Your task to perform on an android device: Open the Play Movies app and select the watchlist tab. Image 0: 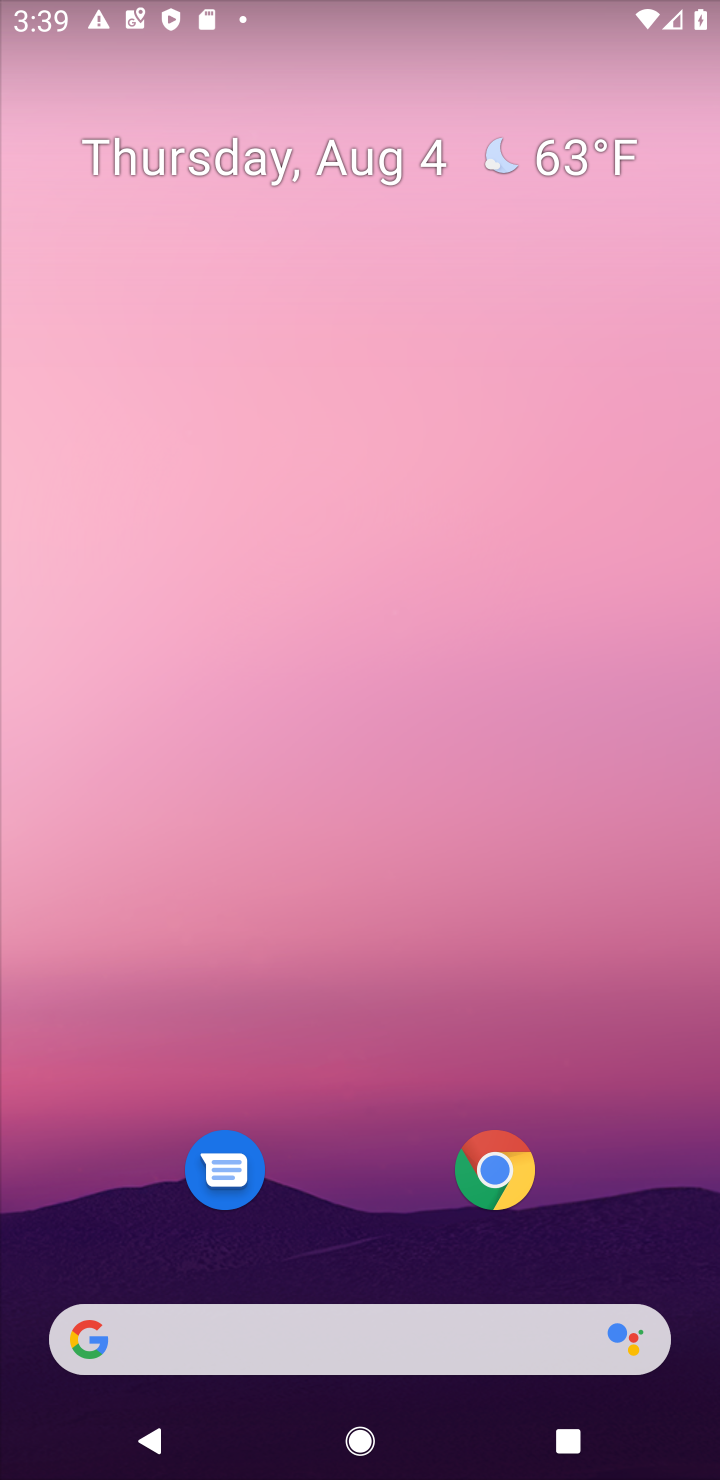
Step 0: drag from (639, 1240) to (556, 259)
Your task to perform on an android device: Open the Play Movies app and select the watchlist tab. Image 1: 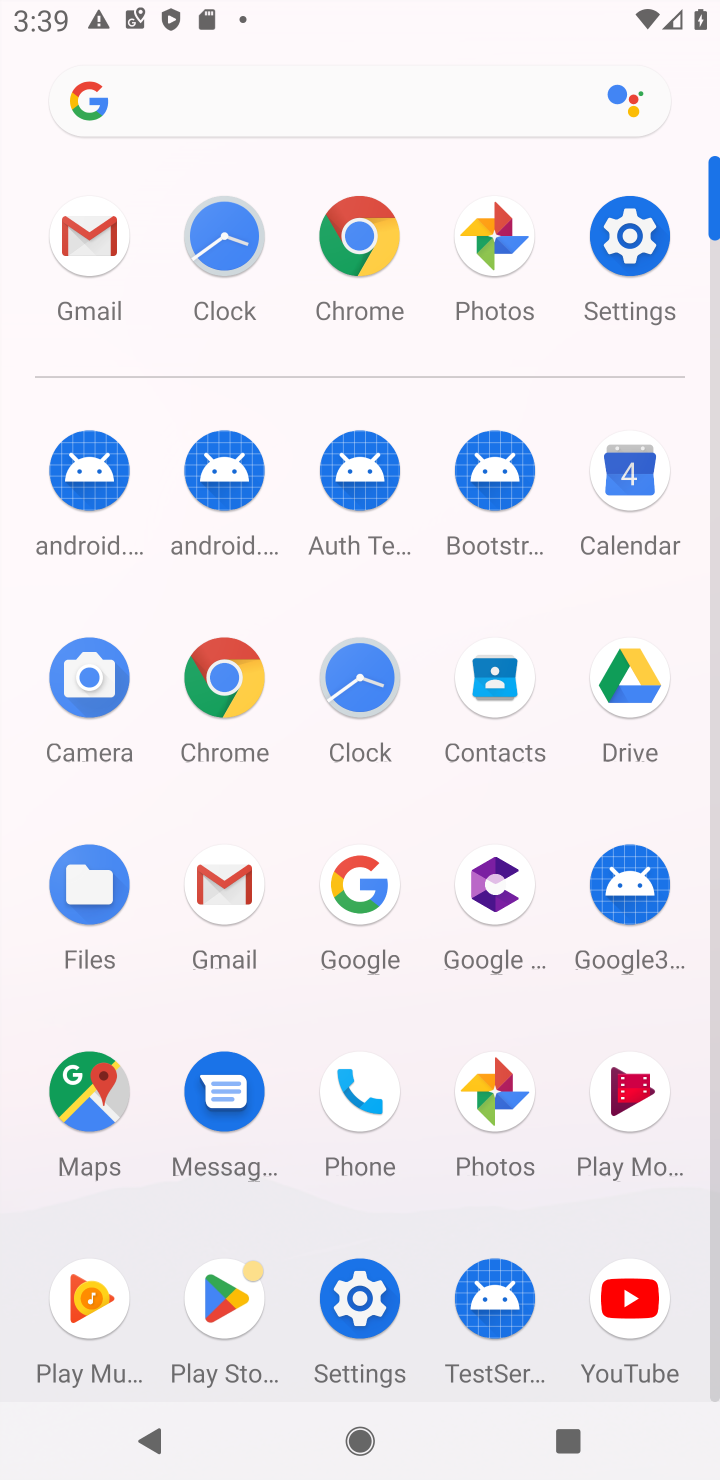
Step 1: click (627, 1089)
Your task to perform on an android device: Open the Play Movies app and select the watchlist tab. Image 2: 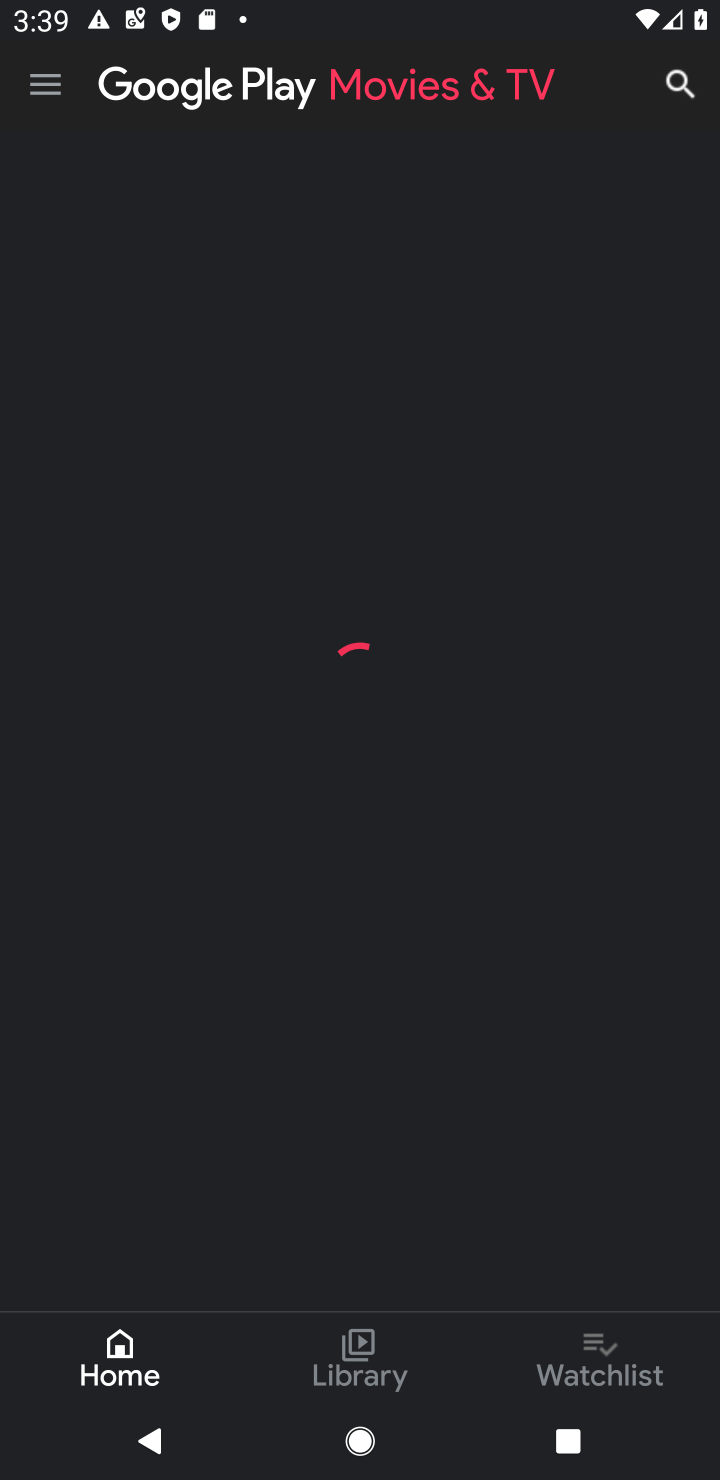
Step 2: click (594, 1342)
Your task to perform on an android device: Open the Play Movies app and select the watchlist tab. Image 3: 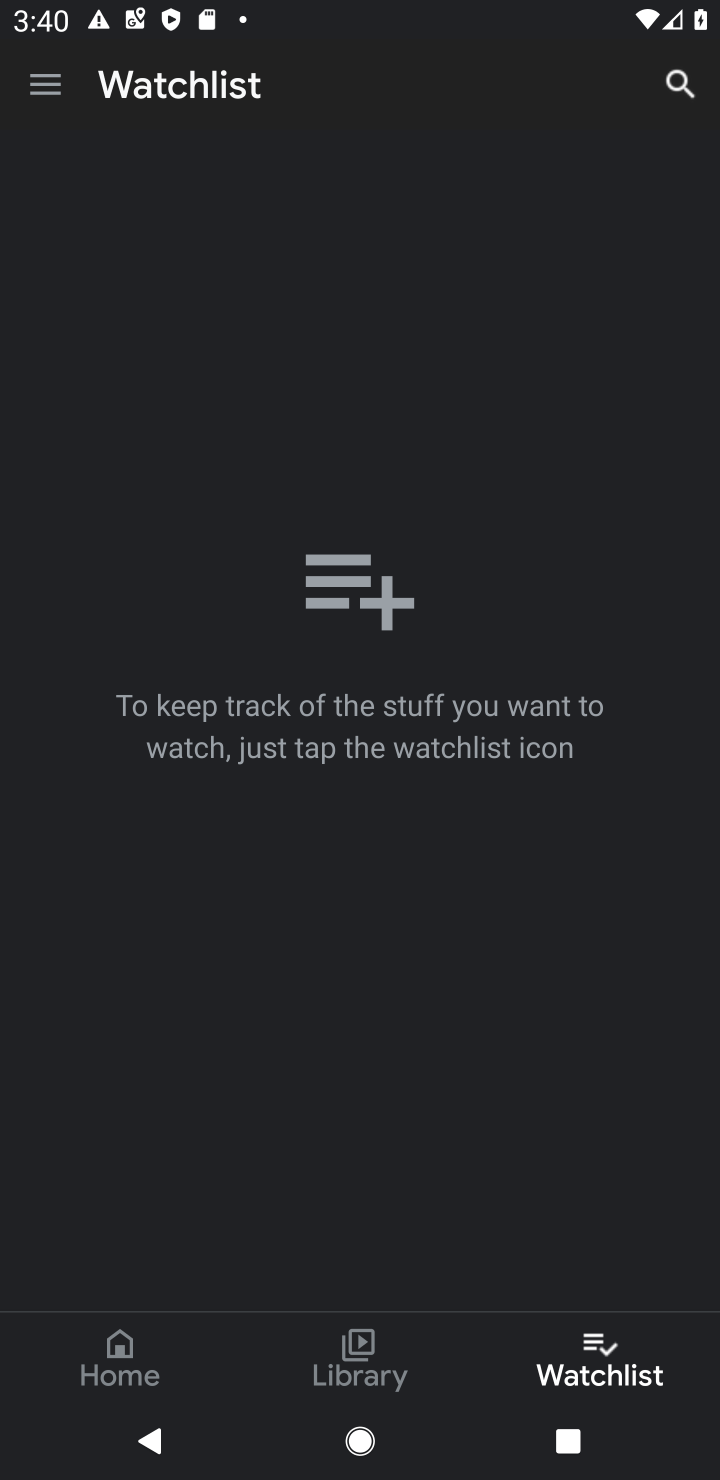
Step 3: task complete